Your task to perform on an android device: toggle show notifications on the lock screen Image 0: 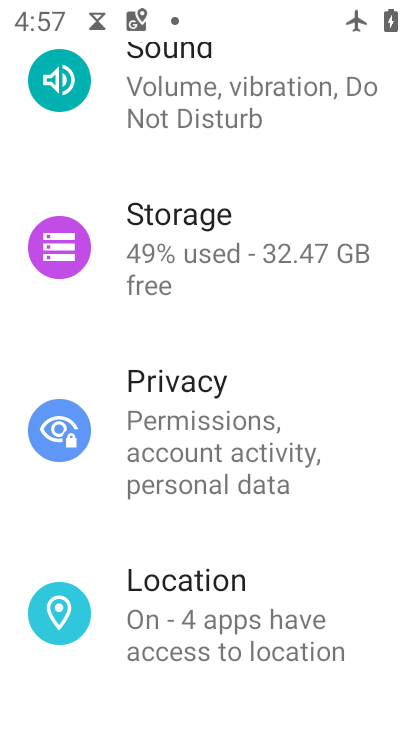
Step 0: press home button
Your task to perform on an android device: toggle show notifications on the lock screen Image 1: 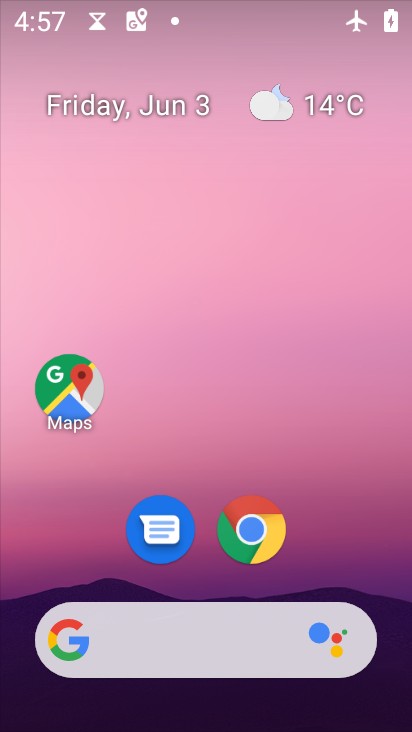
Step 1: drag from (338, 539) to (253, 6)
Your task to perform on an android device: toggle show notifications on the lock screen Image 2: 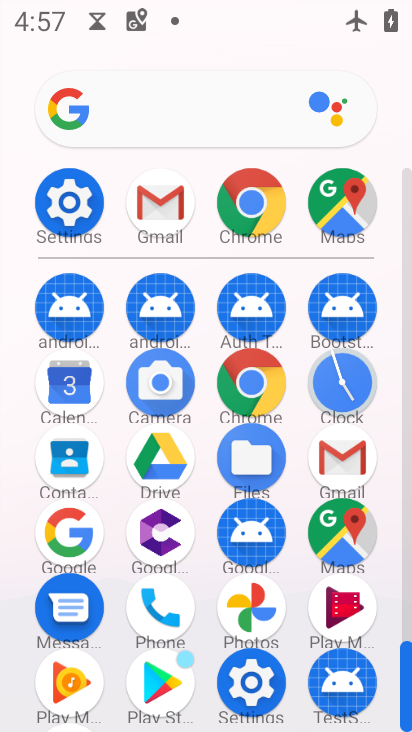
Step 2: click (63, 250)
Your task to perform on an android device: toggle show notifications on the lock screen Image 3: 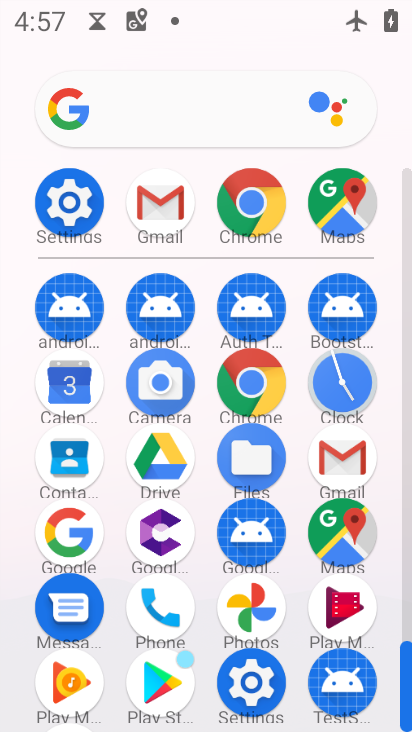
Step 3: click (76, 223)
Your task to perform on an android device: toggle show notifications on the lock screen Image 4: 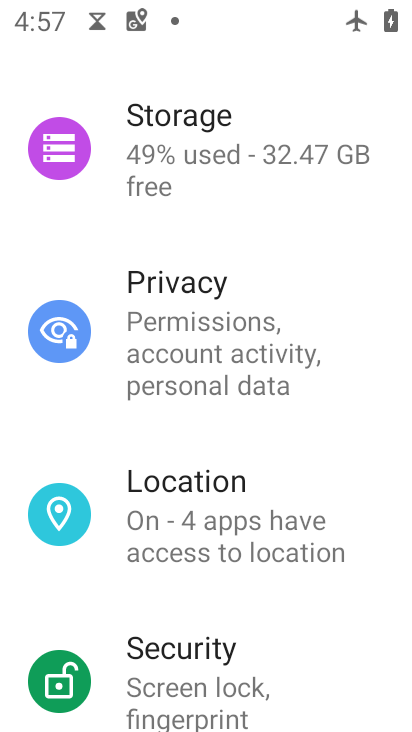
Step 4: drag from (247, 204) to (290, 631)
Your task to perform on an android device: toggle show notifications on the lock screen Image 5: 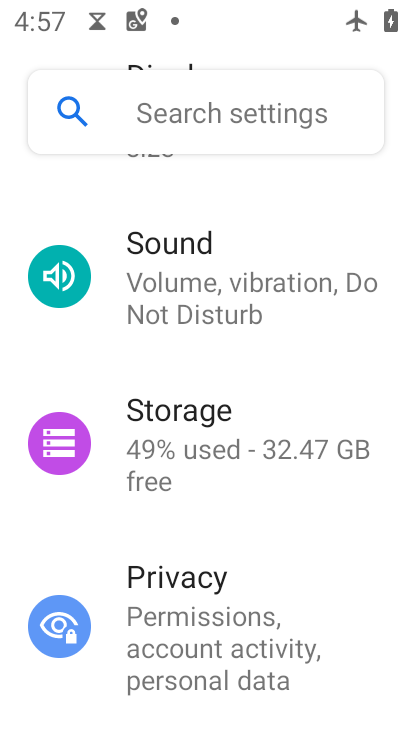
Step 5: drag from (284, 176) to (321, 726)
Your task to perform on an android device: toggle show notifications on the lock screen Image 6: 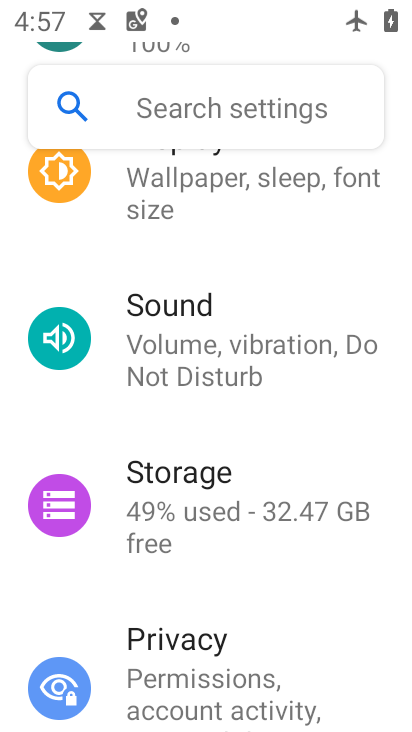
Step 6: drag from (258, 222) to (242, 692)
Your task to perform on an android device: toggle show notifications on the lock screen Image 7: 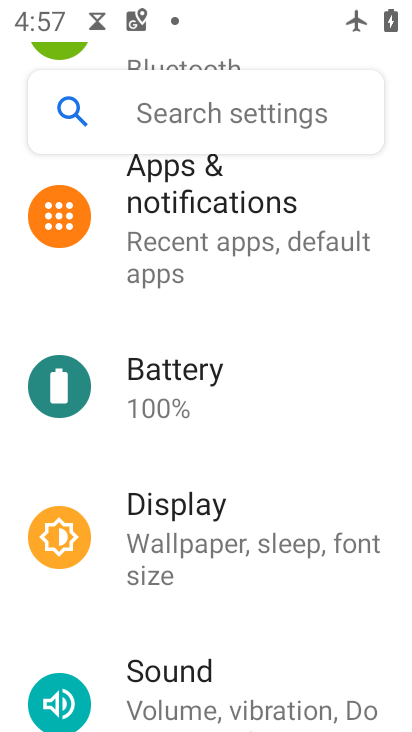
Step 7: drag from (288, 232) to (286, 647)
Your task to perform on an android device: toggle show notifications on the lock screen Image 8: 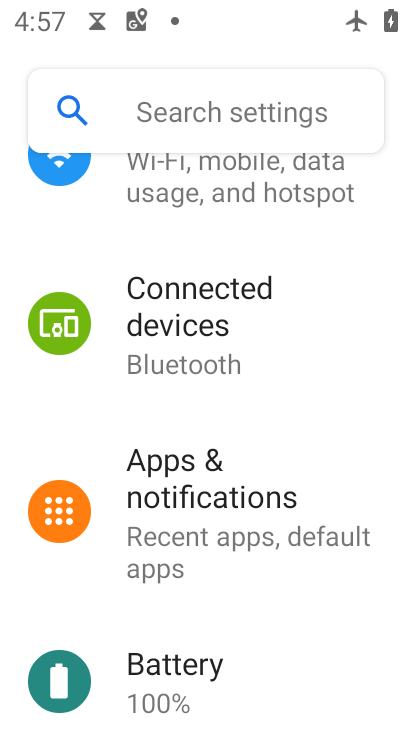
Step 8: click (214, 506)
Your task to perform on an android device: toggle show notifications on the lock screen Image 9: 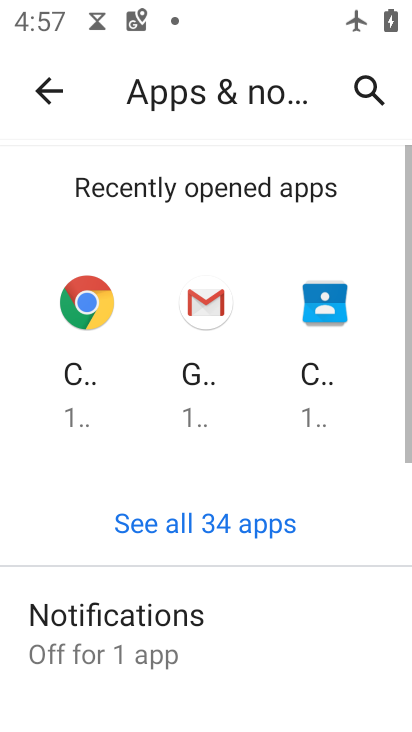
Step 9: click (124, 675)
Your task to perform on an android device: toggle show notifications on the lock screen Image 10: 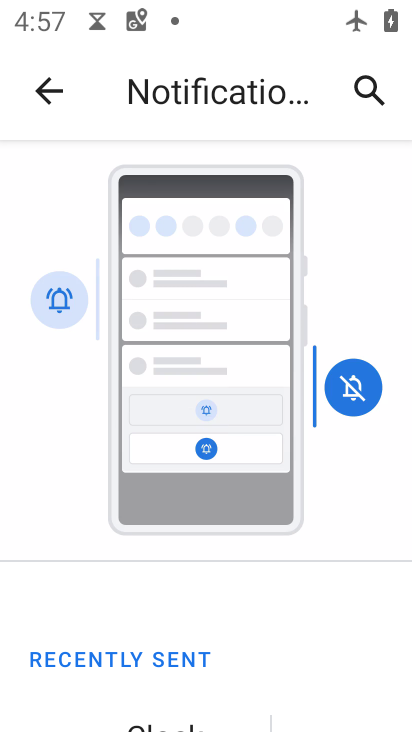
Step 10: drag from (204, 578) to (245, 260)
Your task to perform on an android device: toggle show notifications on the lock screen Image 11: 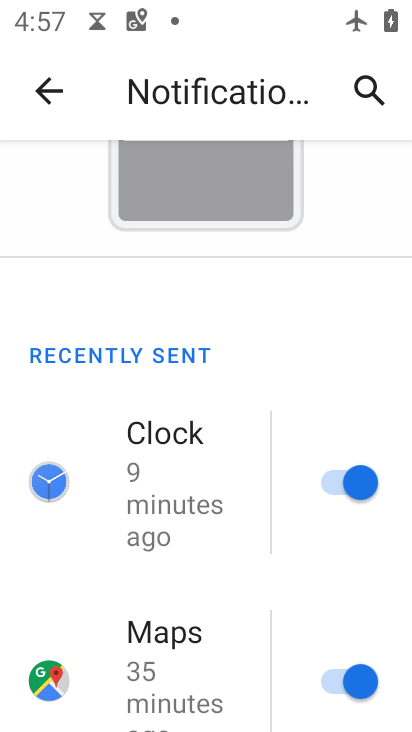
Step 11: drag from (199, 621) to (251, 225)
Your task to perform on an android device: toggle show notifications on the lock screen Image 12: 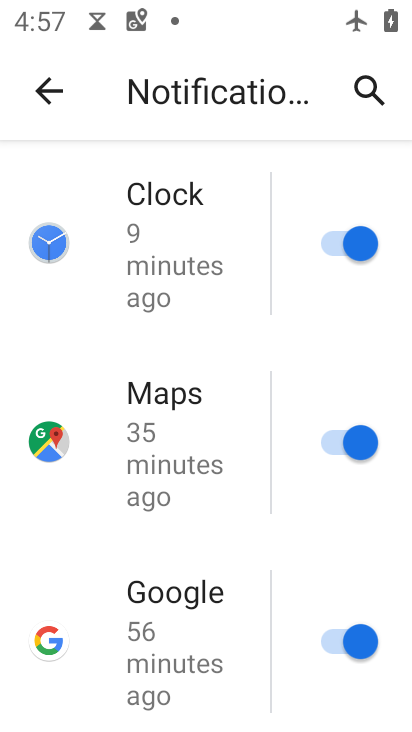
Step 12: drag from (191, 656) to (249, 93)
Your task to perform on an android device: toggle show notifications on the lock screen Image 13: 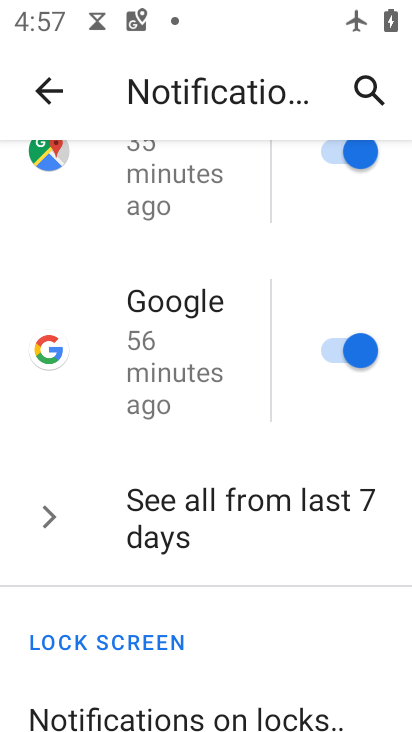
Step 13: drag from (141, 636) to (164, 196)
Your task to perform on an android device: toggle show notifications on the lock screen Image 14: 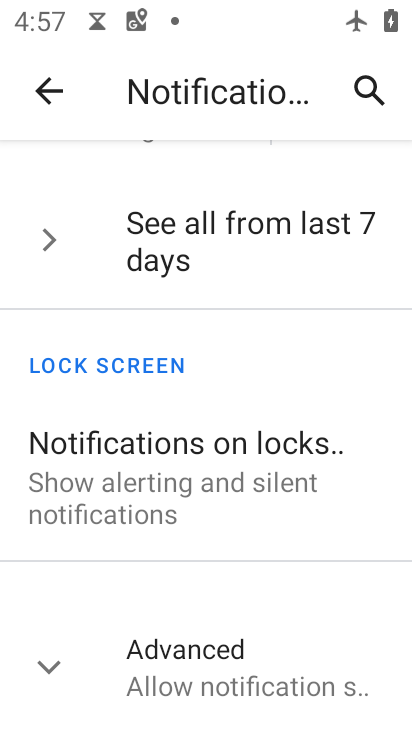
Step 14: click (119, 488)
Your task to perform on an android device: toggle show notifications on the lock screen Image 15: 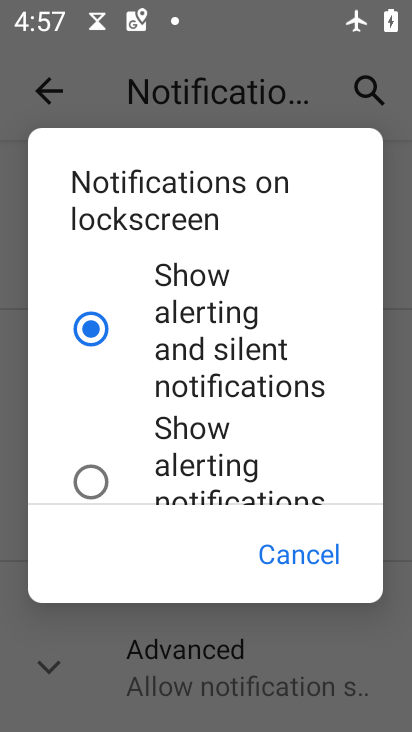
Step 15: click (96, 477)
Your task to perform on an android device: toggle show notifications on the lock screen Image 16: 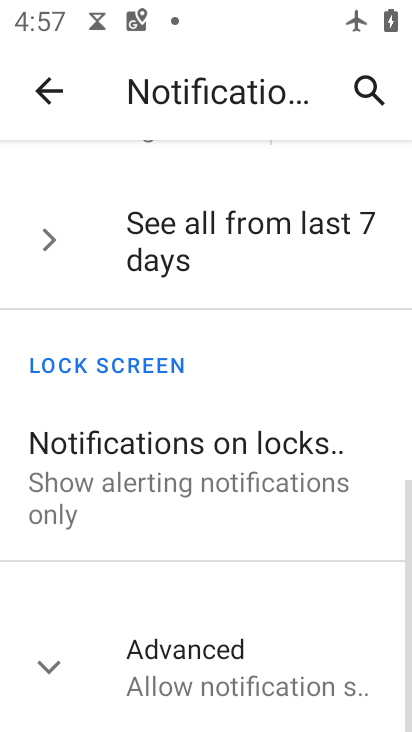
Step 16: task complete